Your task to perform on an android device: Open Maps and search for coffee Image 0: 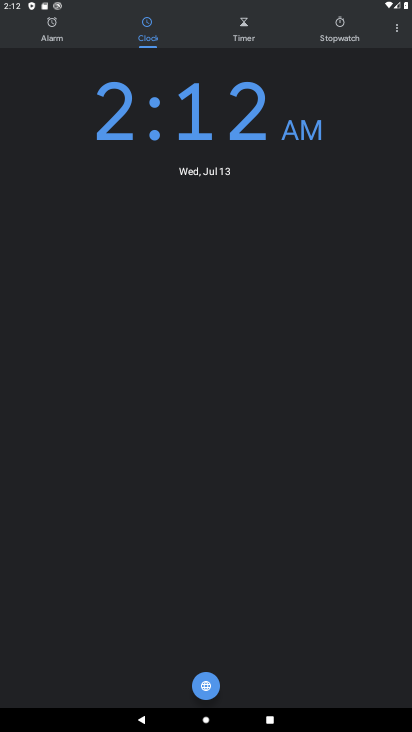
Step 0: press home button
Your task to perform on an android device: Open Maps and search for coffee Image 1: 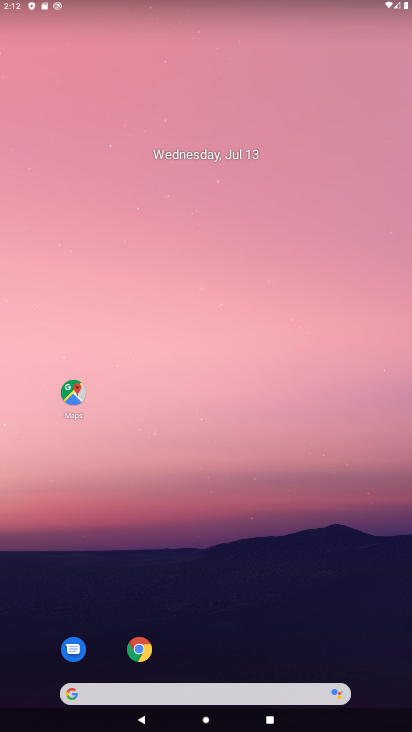
Step 1: click (73, 394)
Your task to perform on an android device: Open Maps and search for coffee Image 2: 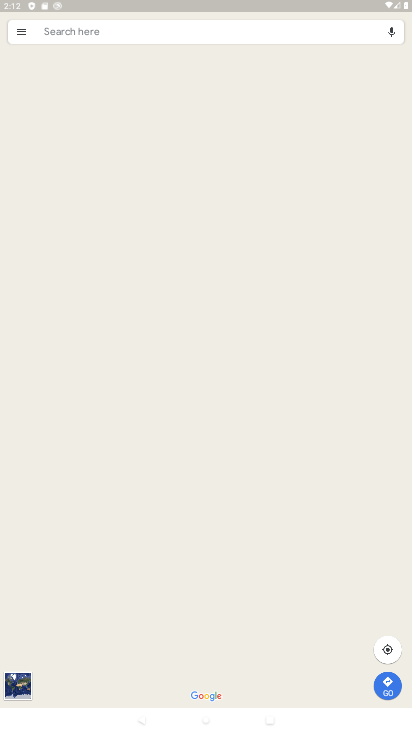
Step 2: click (162, 30)
Your task to perform on an android device: Open Maps and search for coffee Image 3: 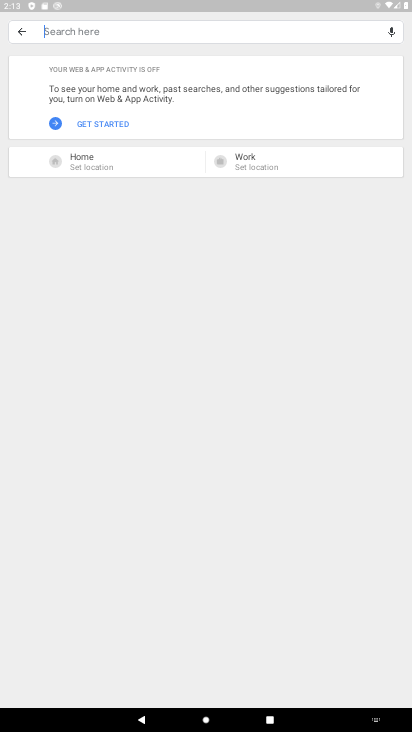
Step 3: type "coffee"
Your task to perform on an android device: Open Maps and search for coffee Image 4: 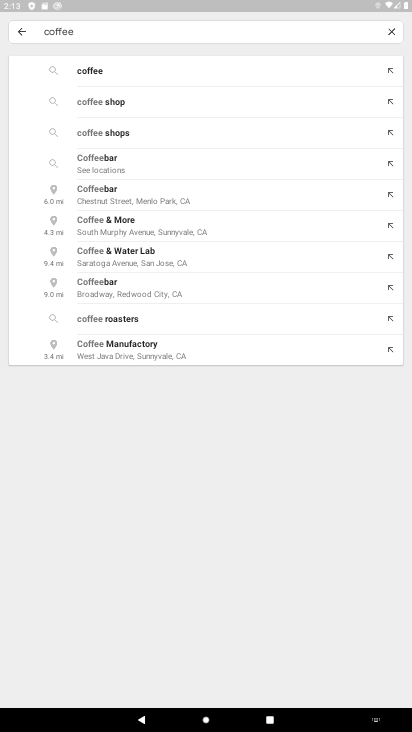
Step 4: drag from (86, 121) to (296, 0)
Your task to perform on an android device: Open Maps and search for coffee Image 5: 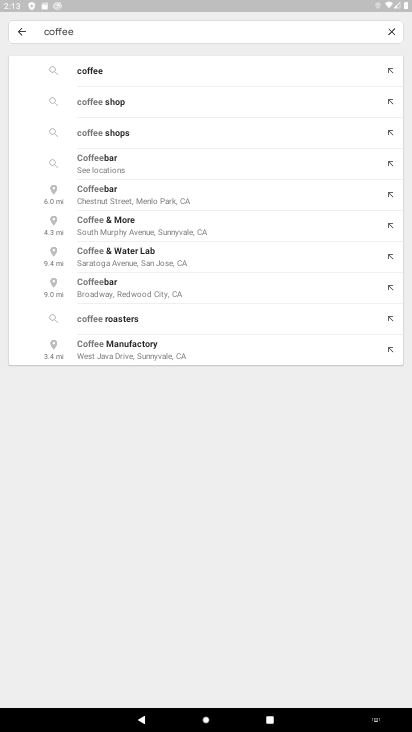
Step 5: click (68, 72)
Your task to perform on an android device: Open Maps and search for coffee Image 6: 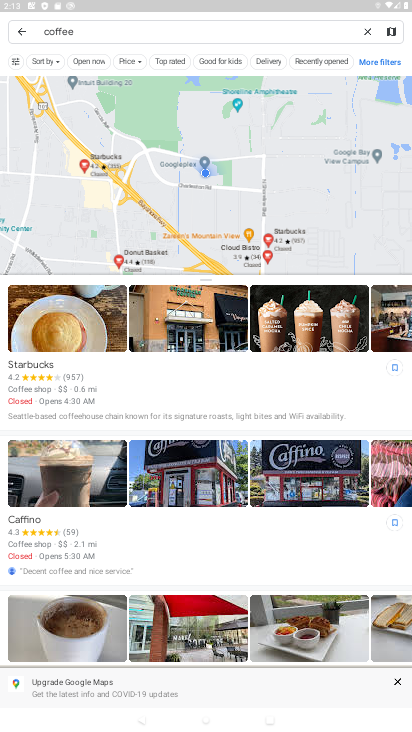
Step 6: task complete